Your task to perform on an android device: Open display settings Image 0: 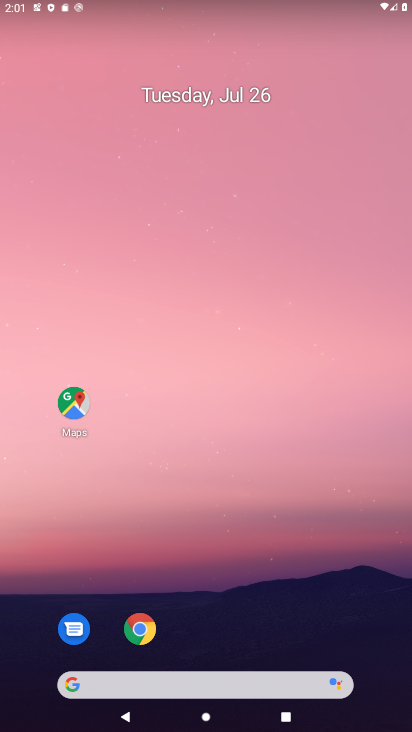
Step 0: drag from (224, 620) to (234, 198)
Your task to perform on an android device: Open display settings Image 1: 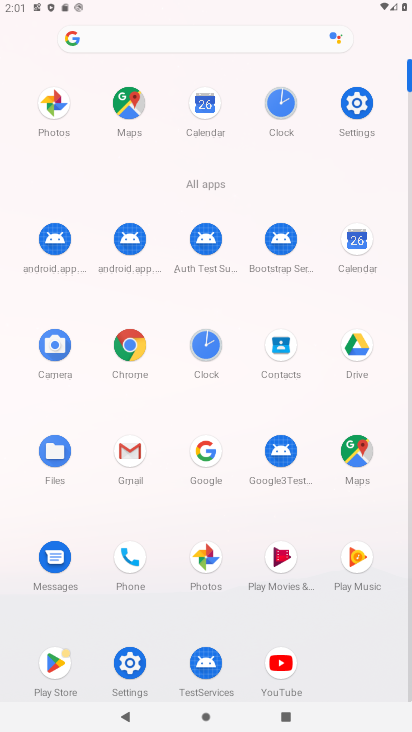
Step 1: click (347, 96)
Your task to perform on an android device: Open display settings Image 2: 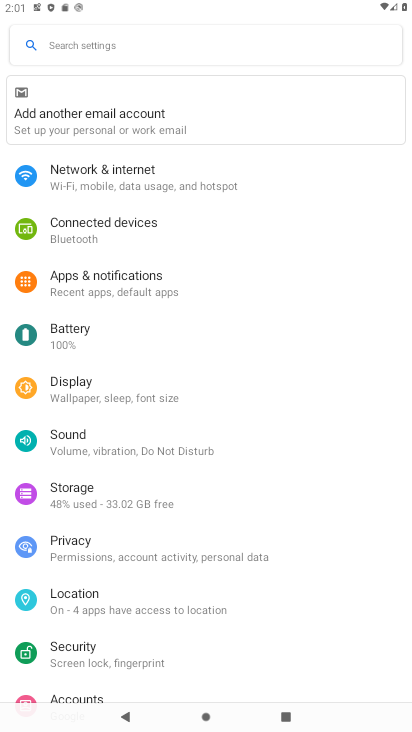
Step 2: click (154, 394)
Your task to perform on an android device: Open display settings Image 3: 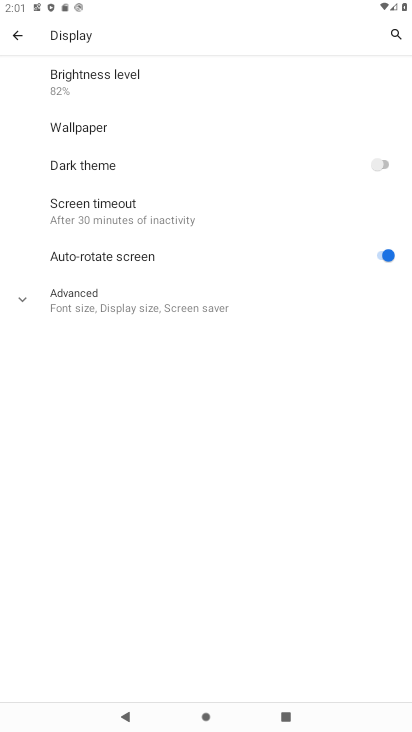
Step 3: task complete